Your task to perform on an android device: check battery use Image 0: 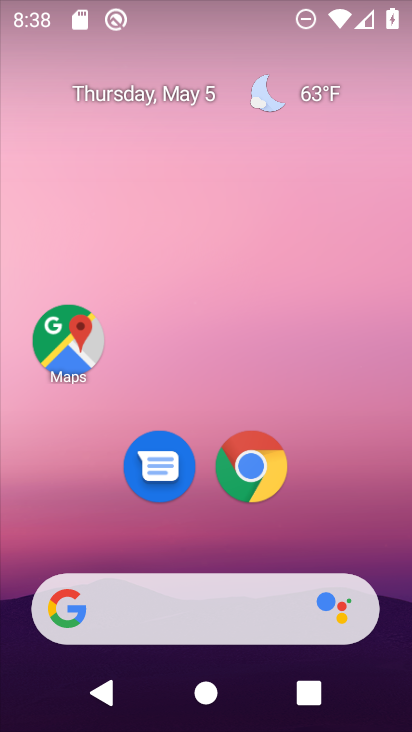
Step 0: drag from (196, 550) to (157, 12)
Your task to perform on an android device: check battery use Image 1: 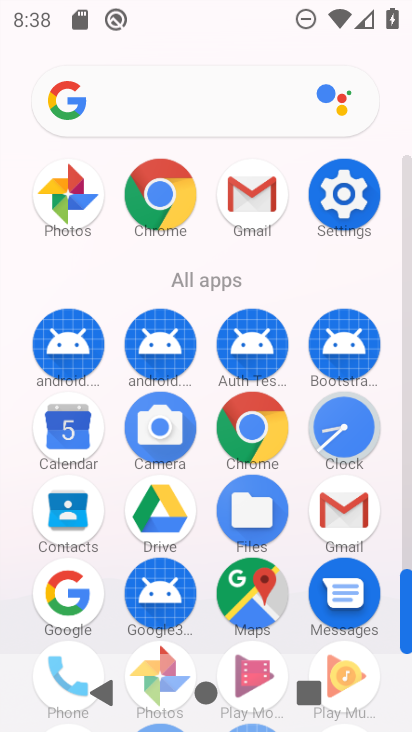
Step 1: click (351, 225)
Your task to perform on an android device: check battery use Image 2: 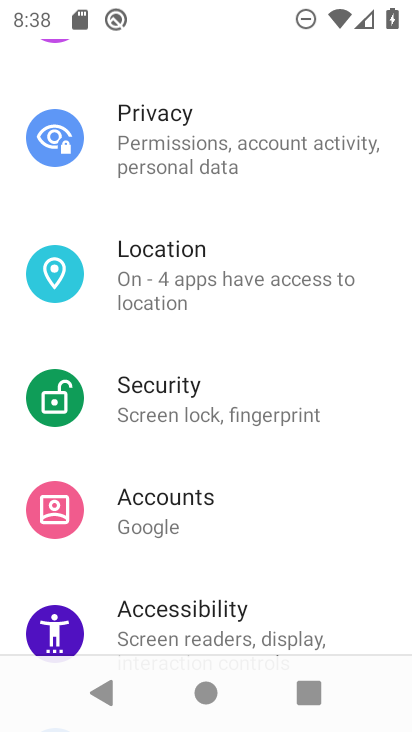
Step 2: drag from (193, 544) to (210, 182)
Your task to perform on an android device: check battery use Image 3: 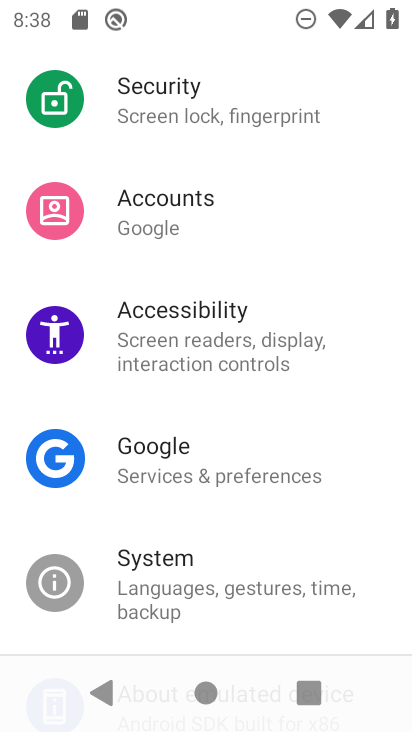
Step 3: drag from (199, 119) to (210, 679)
Your task to perform on an android device: check battery use Image 4: 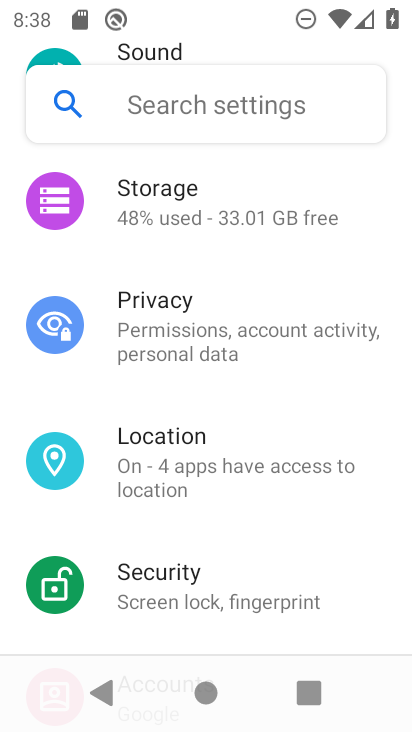
Step 4: drag from (243, 184) to (251, 651)
Your task to perform on an android device: check battery use Image 5: 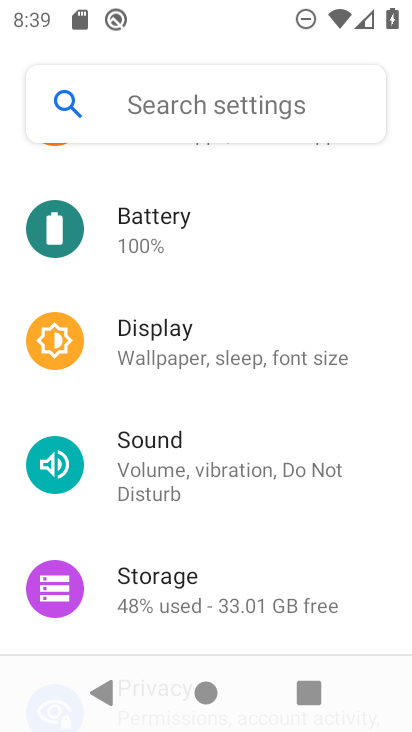
Step 5: click (188, 235)
Your task to perform on an android device: check battery use Image 6: 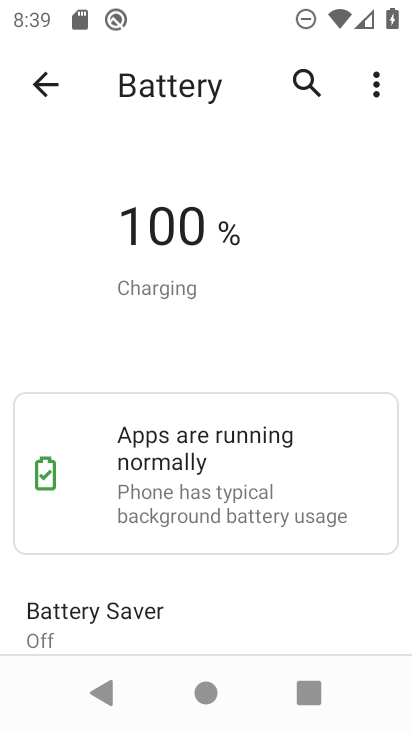
Step 6: drag from (205, 587) to (215, 463)
Your task to perform on an android device: check battery use Image 7: 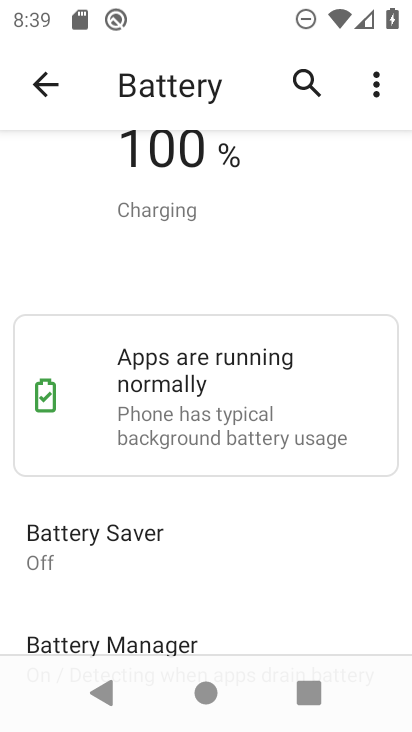
Step 7: click (374, 82)
Your task to perform on an android device: check battery use Image 8: 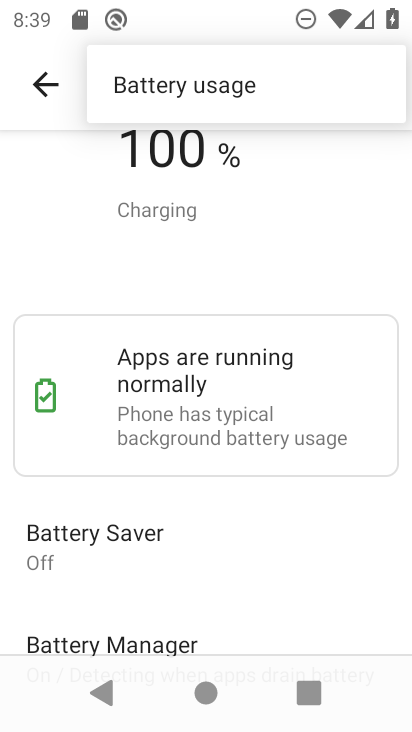
Step 8: click (281, 86)
Your task to perform on an android device: check battery use Image 9: 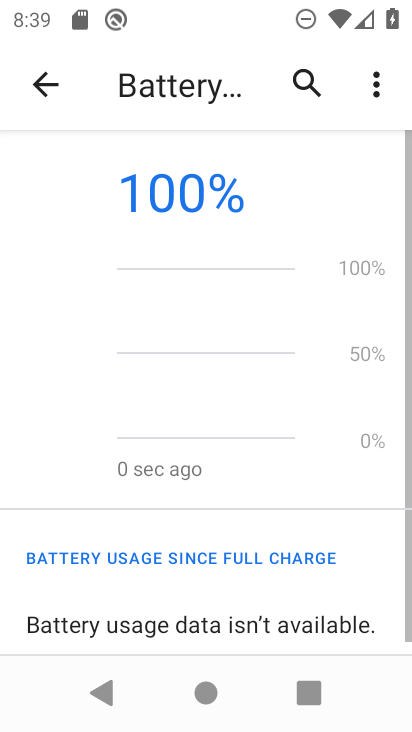
Step 9: task complete